Your task to perform on an android device: Open display settings Image 0: 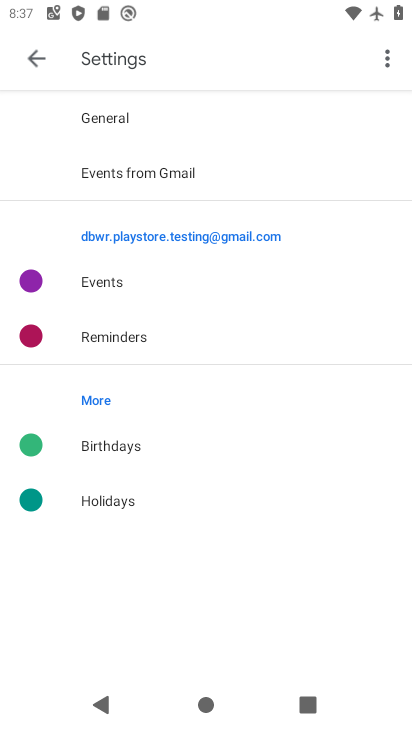
Step 0: press back button
Your task to perform on an android device: Open display settings Image 1: 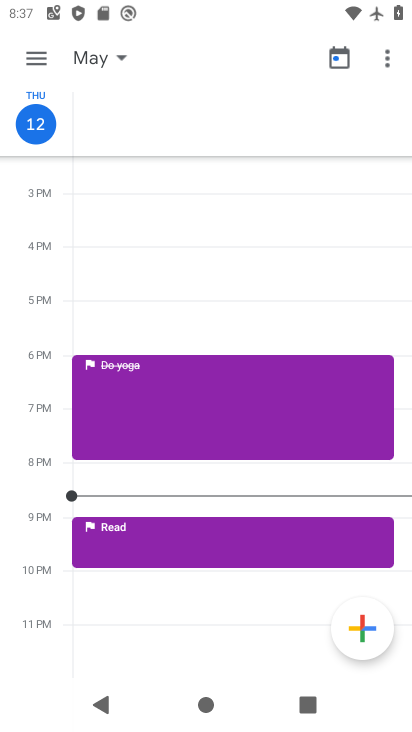
Step 1: press home button
Your task to perform on an android device: Open display settings Image 2: 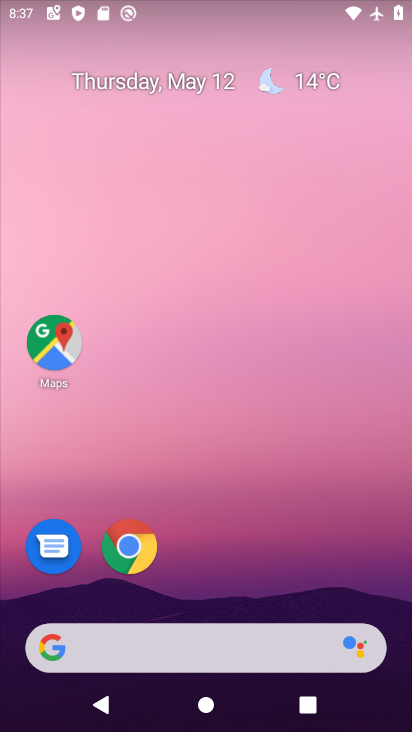
Step 2: drag from (205, 642) to (392, 11)
Your task to perform on an android device: Open display settings Image 3: 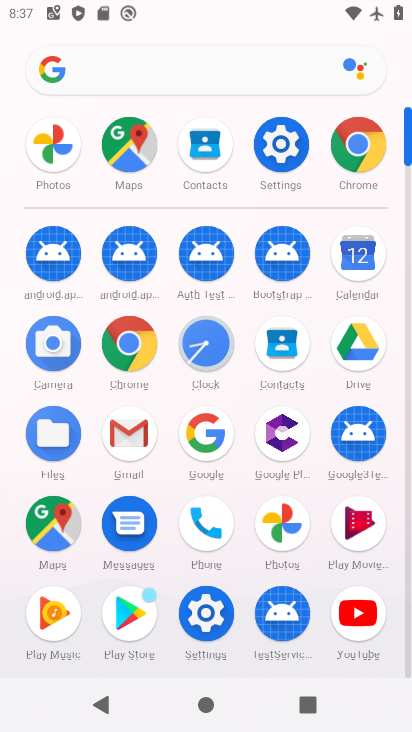
Step 3: click (306, 131)
Your task to perform on an android device: Open display settings Image 4: 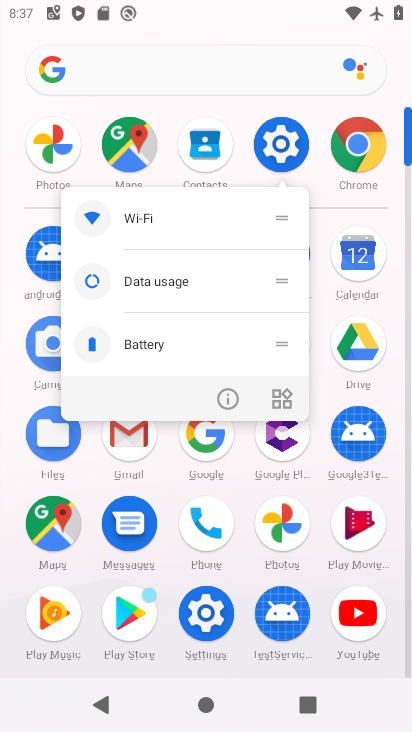
Step 4: click (278, 133)
Your task to perform on an android device: Open display settings Image 5: 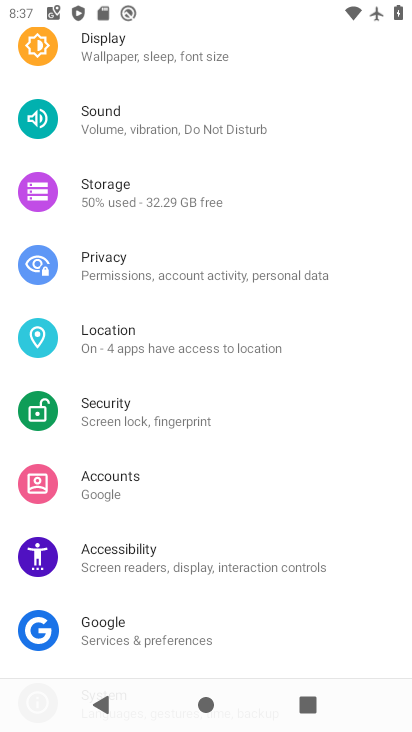
Step 5: click (137, 50)
Your task to perform on an android device: Open display settings Image 6: 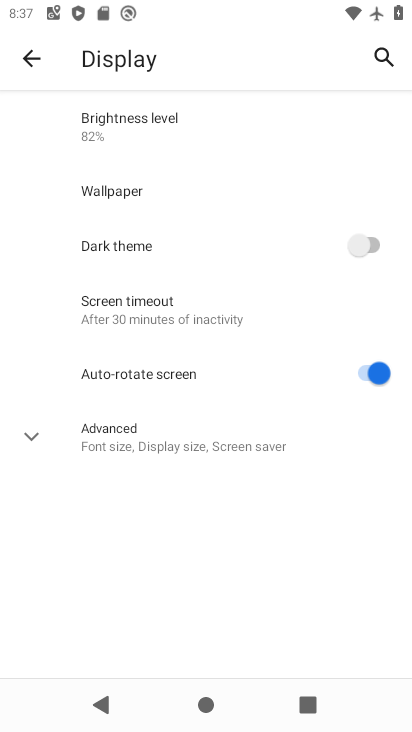
Step 6: task complete